Your task to perform on an android device: check data usage Image 0: 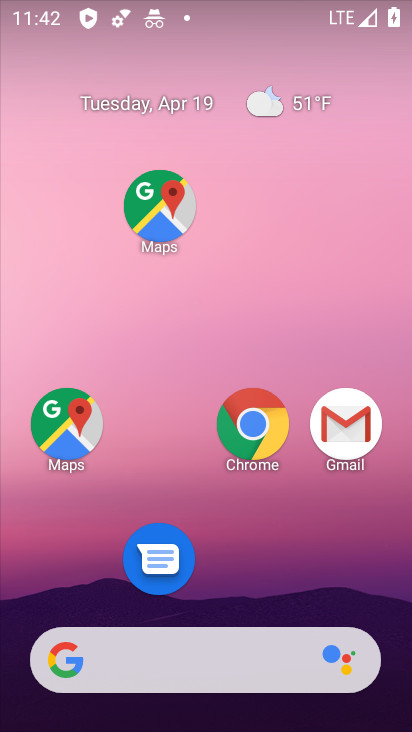
Step 0: drag from (270, 717) to (158, 42)
Your task to perform on an android device: check data usage Image 1: 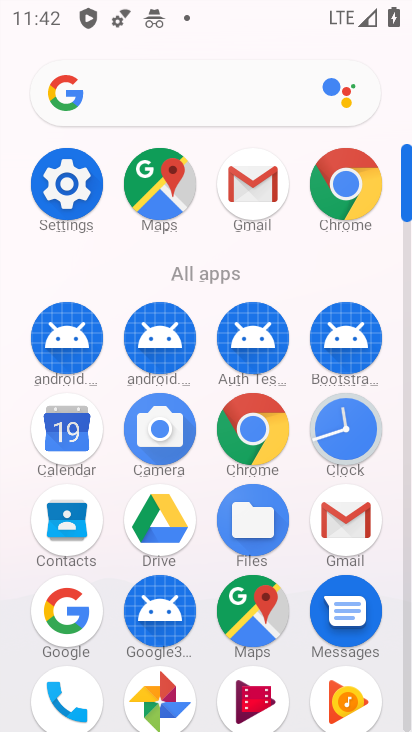
Step 1: click (58, 187)
Your task to perform on an android device: check data usage Image 2: 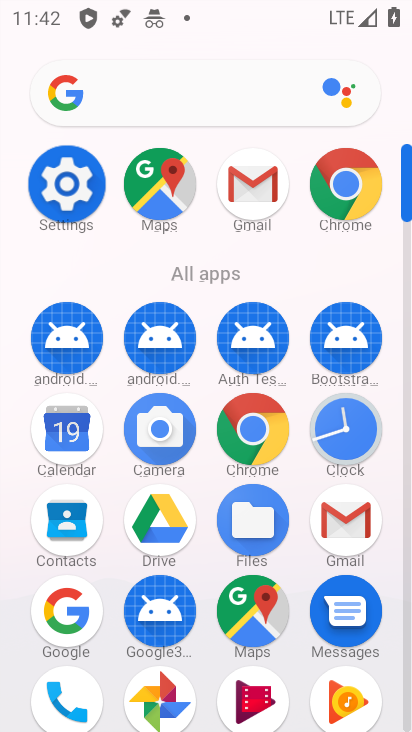
Step 2: click (58, 187)
Your task to perform on an android device: check data usage Image 3: 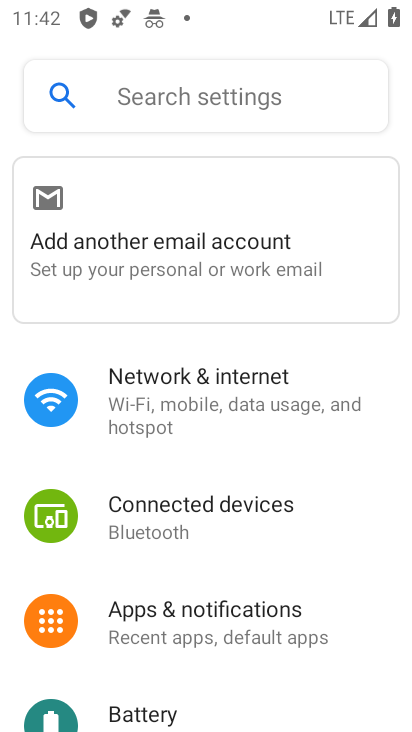
Step 3: drag from (231, 625) to (214, 211)
Your task to perform on an android device: check data usage Image 4: 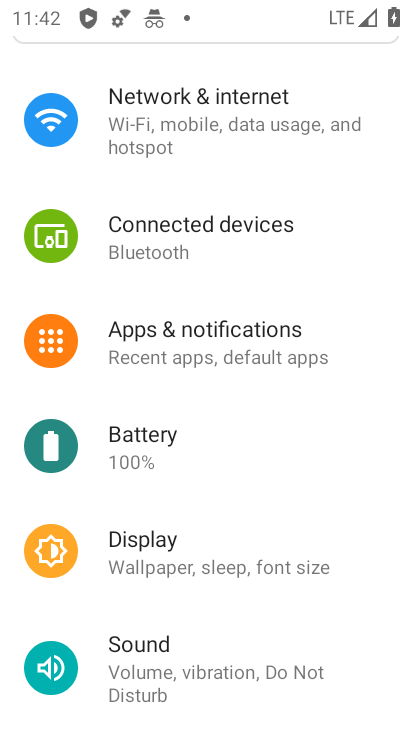
Step 4: drag from (167, 465) to (155, 381)
Your task to perform on an android device: check data usage Image 5: 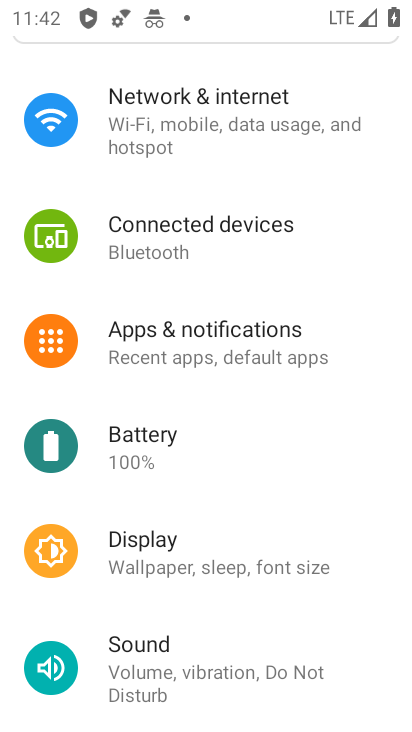
Step 5: drag from (184, 538) to (294, 161)
Your task to perform on an android device: check data usage Image 6: 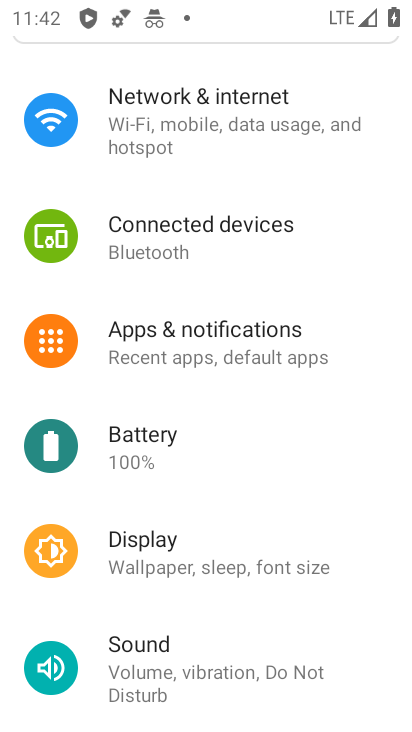
Step 6: drag from (194, 625) to (141, 350)
Your task to perform on an android device: check data usage Image 7: 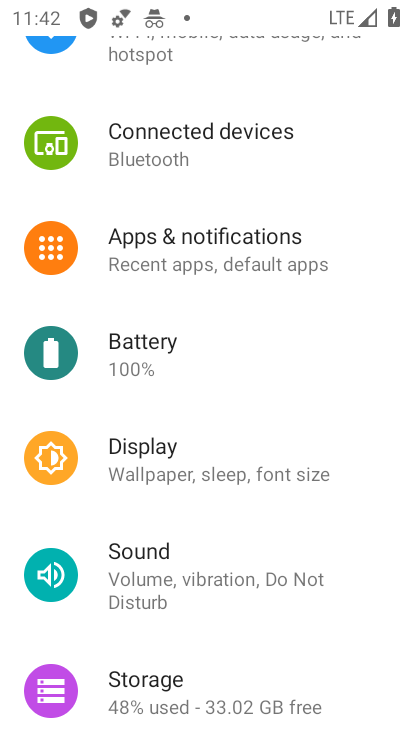
Step 7: drag from (198, 496) to (187, 139)
Your task to perform on an android device: check data usage Image 8: 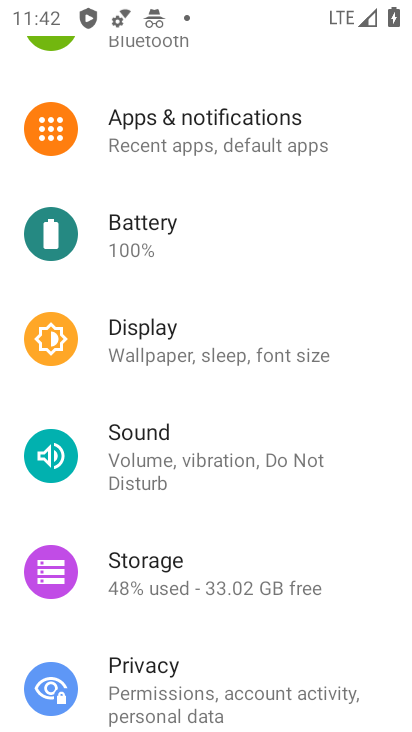
Step 8: drag from (189, 153) to (223, 651)
Your task to perform on an android device: check data usage Image 9: 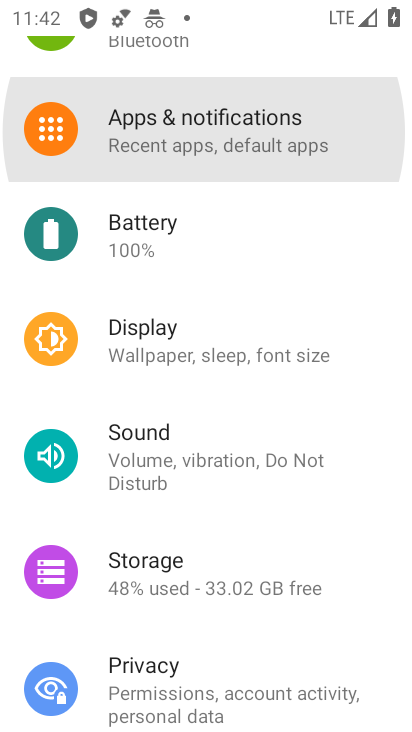
Step 9: drag from (241, 550) to (254, 631)
Your task to perform on an android device: check data usage Image 10: 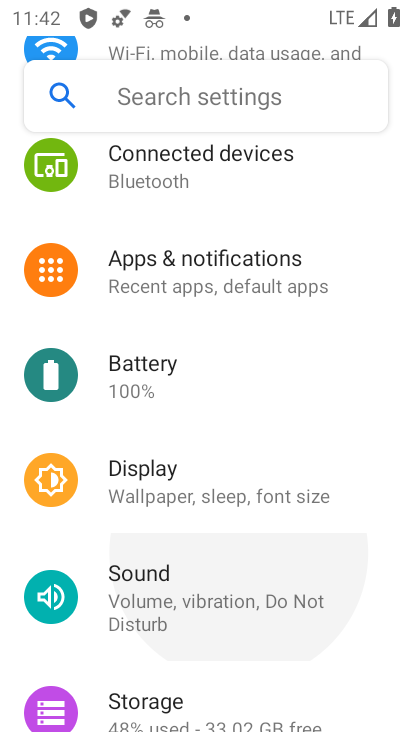
Step 10: click (194, 627)
Your task to perform on an android device: check data usage Image 11: 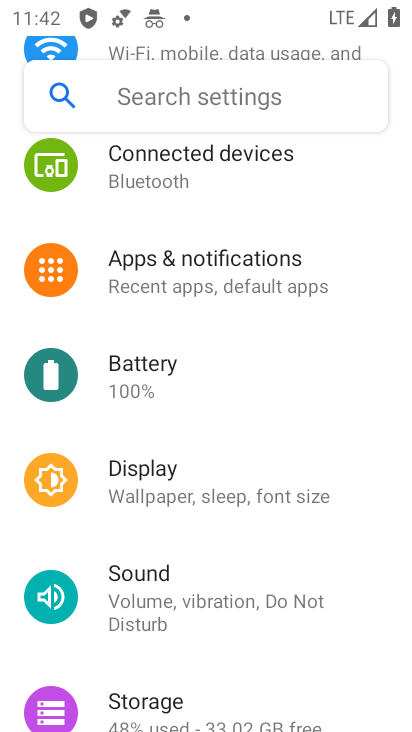
Step 11: drag from (180, 314) to (208, 506)
Your task to perform on an android device: check data usage Image 12: 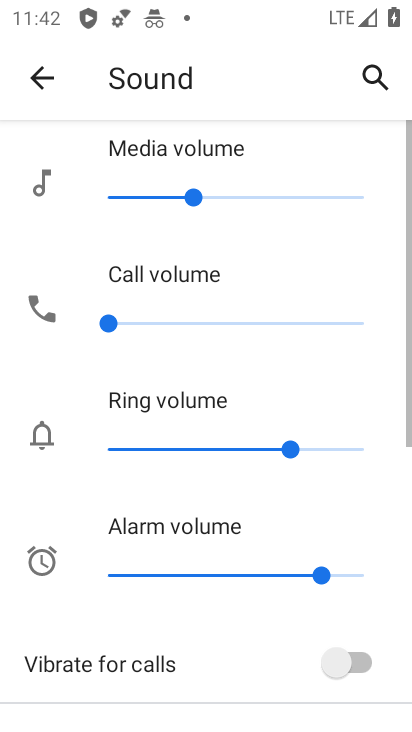
Step 12: drag from (294, 532) to (308, 589)
Your task to perform on an android device: check data usage Image 13: 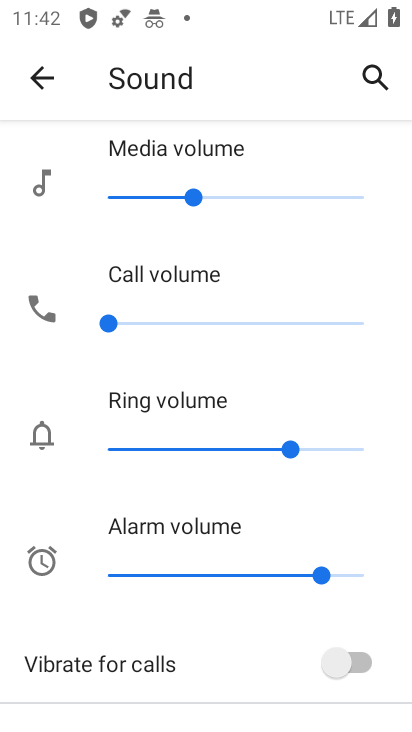
Step 13: click (37, 69)
Your task to perform on an android device: check data usage Image 14: 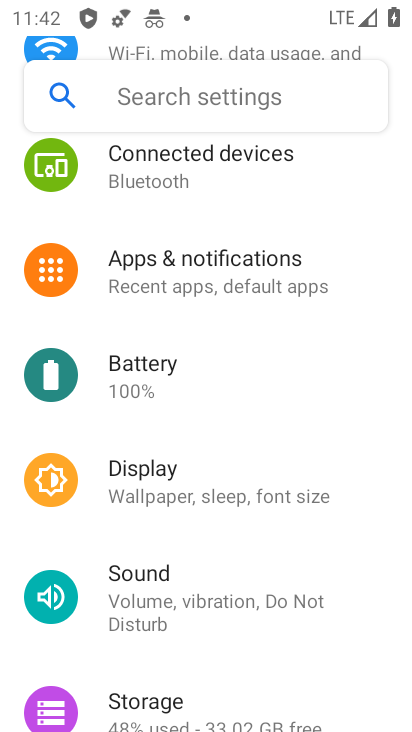
Step 14: drag from (171, 233) to (188, 438)
Your task to perform on an android device: check data usage Image 15: 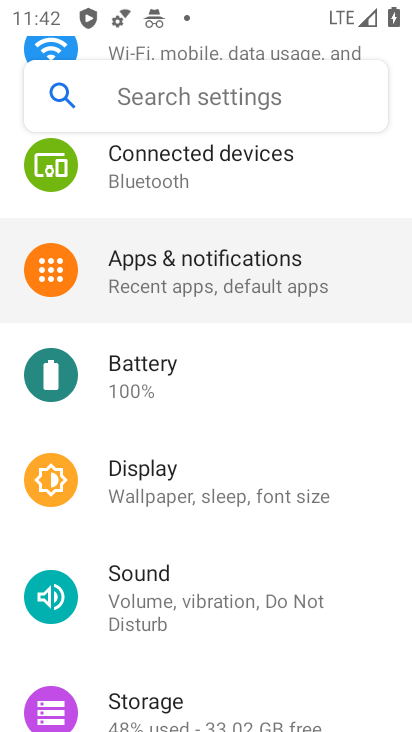
Step 15: drag from (232, 410) to (242, 528)
Your task to perform on an android device: check data usage Image 16: 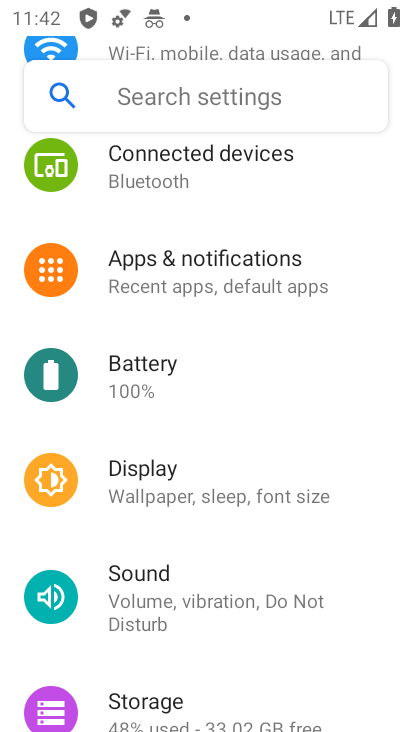
Step 16: drag from (226, 267) to (319, 553)
Your task to perform on an android device: check data usage Image 17: 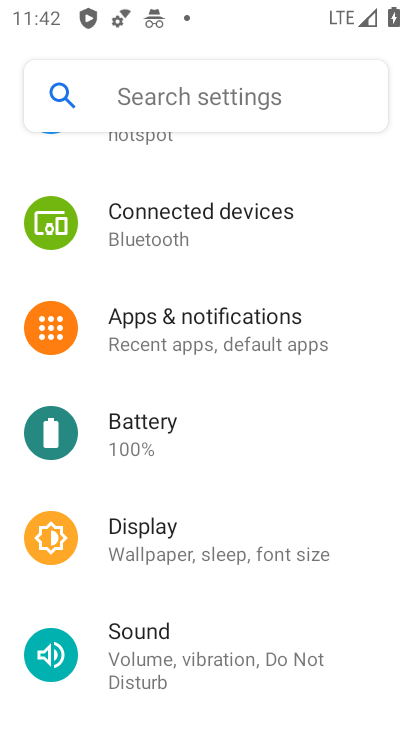
Step 17: drag from (202, 318) to (184, 516)
Your task to perform on an android device: check data usage Image 18: 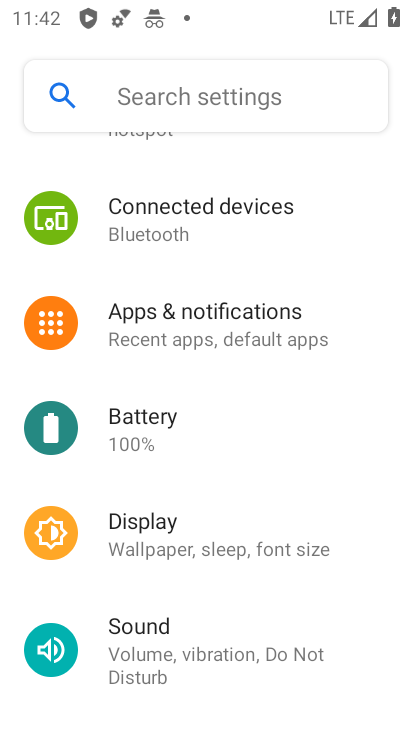
Step 18: drag from (200, 309) to (203, 547)
Your task to perform on an android device: check data usage Image 19: 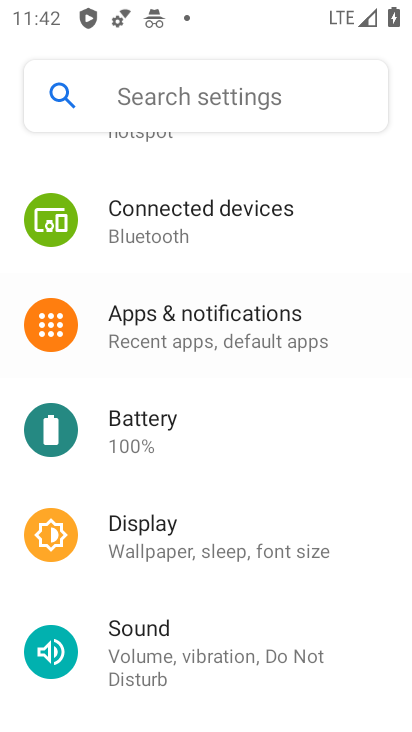
Step 19: drag from (209, 409) to (221, 510)
Your task to perform on an android device: check data usage Image 20: 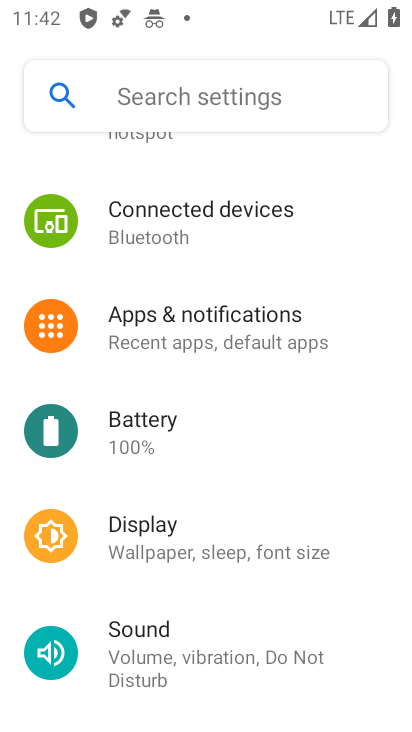
Step 20: drag from (212, 350) to (218, 553)
Your task to perform on an android device: check data usage Image 21: 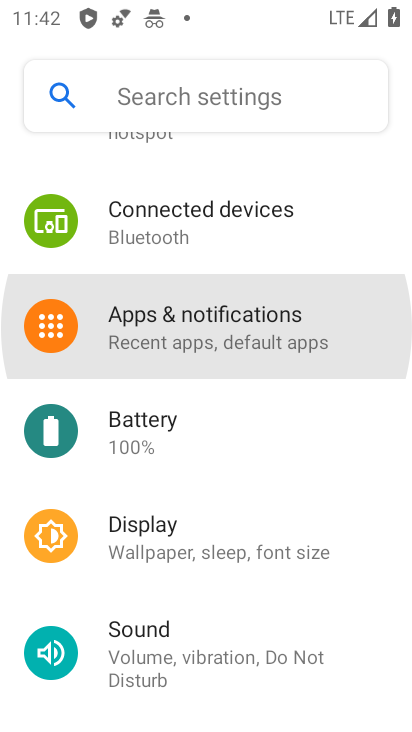
Step 21: drag from (212, 223) to (230, 462)
Your task to perform on an android device: check data usage Image 22: 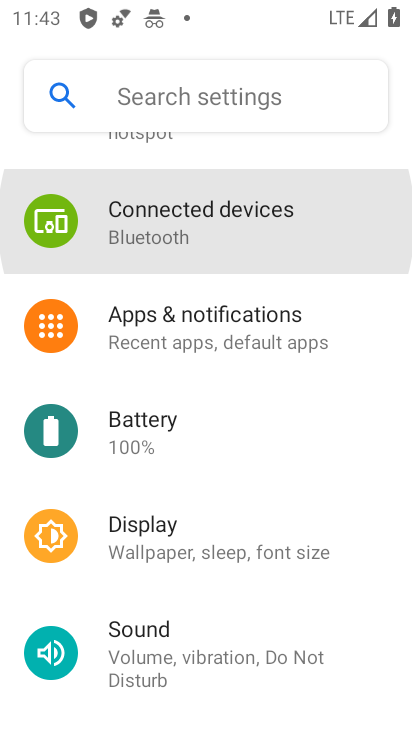
Step 22: drag from (214, 414) to (215, 549)
Your task to perform on an android device: check data usage Image 23: 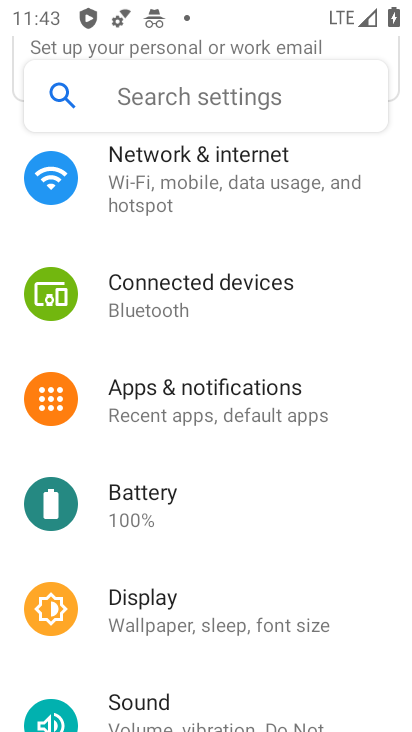
Step 23: click (227, 166)
Your task to perform on an android device: check data usage Image 24: 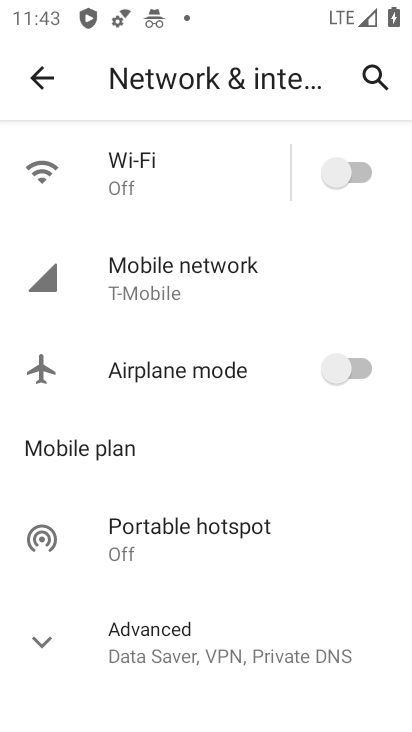
Step 24: task complete